Your task to perform on an android device: Is it going to rain tomorrow? Image 0: 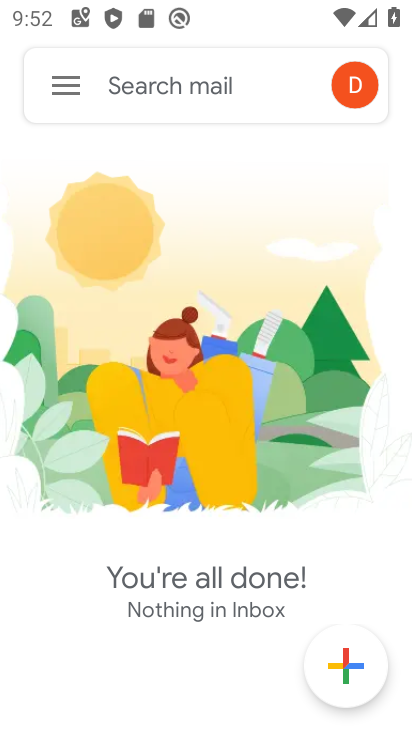
Step 0: press home button
Your task to perform on an android device: Is it going to rain tomorrow? Image 1: 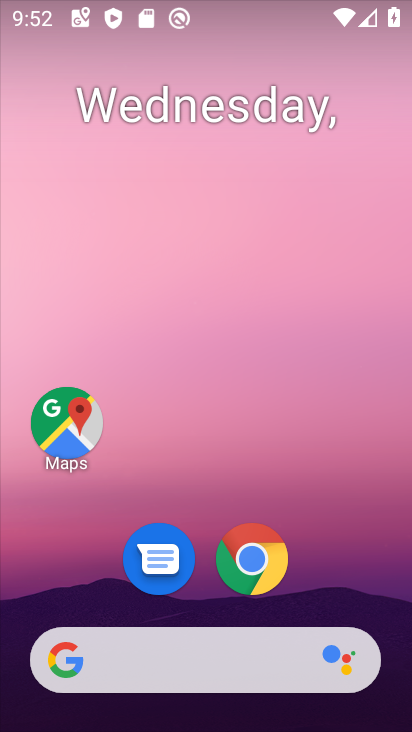
Step 1: click (234, 670)
Your task to perform on an android device: Is it going to rain tomorrow? Image 2: 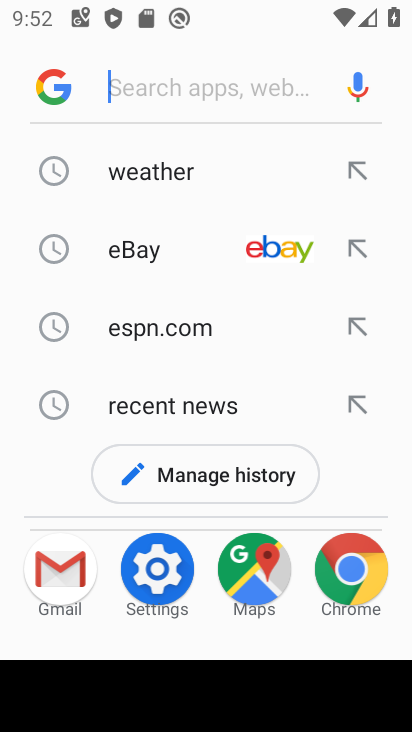
Step 2: click (109, 173)
Your task to perform on an android device: Is it going to rain tomorrow? Image 3: 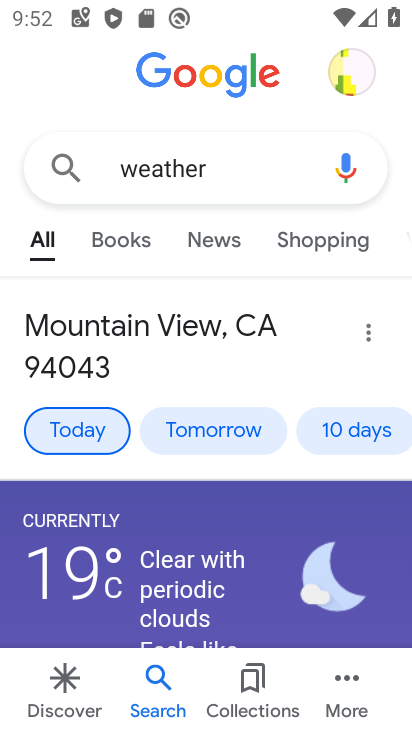
Step 3: click (66, 421)
Your task to perform on an android device: Is it going to rain tomorrow? Image 4: 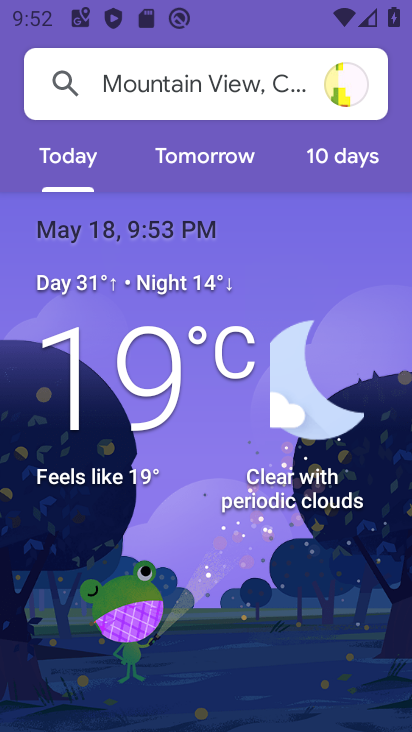
Step 4: click (218, 148)
Your task to perform on an android device: Is it going to rain tomorrow? Image 5: 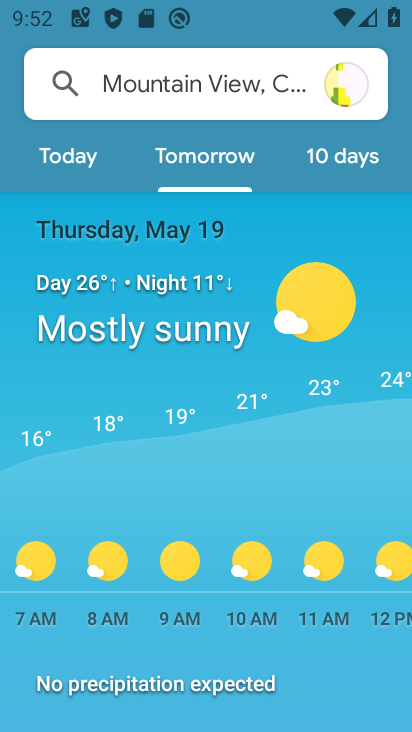
Step 5: task complete